Your task to perform on an android device: change the clock display to digital Image 0: 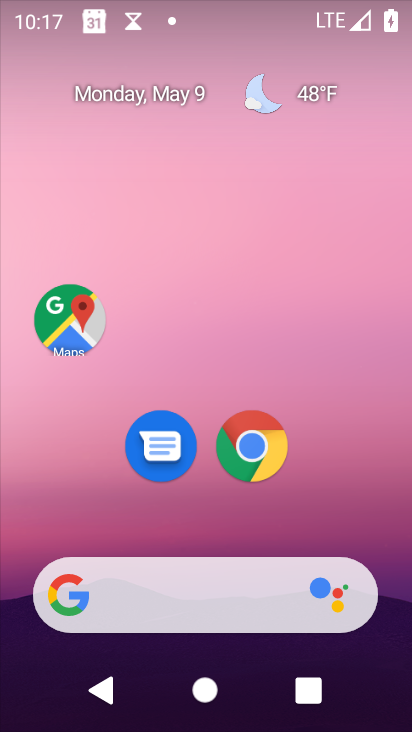
Step 0: drag from (283, 509) to (283, 96)
Your task to perform on an android device: change the clock display to digital Image 1: 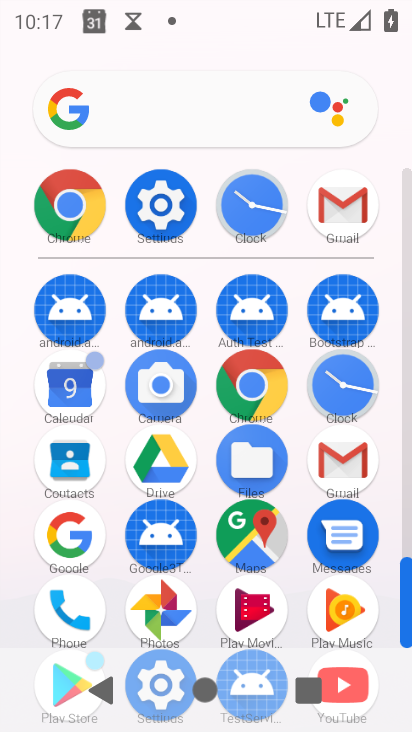
Step 1: click (253, 212)
Your task to perform on an android device: change the clock display to digital Image 2: 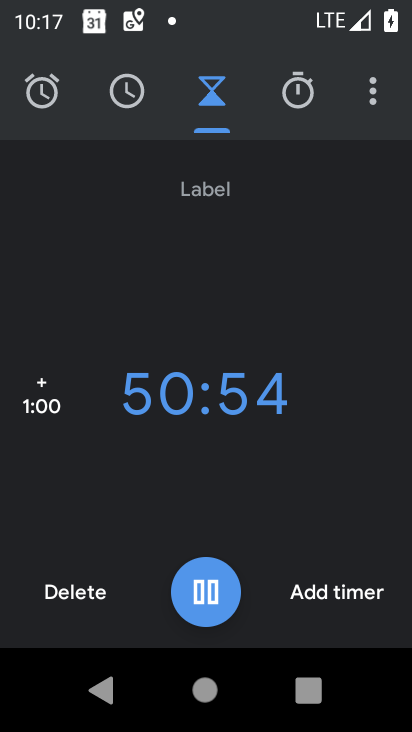
Step 2: click (377, 102)
Your task to perform on an android device: change the clock display to digital Image 3: 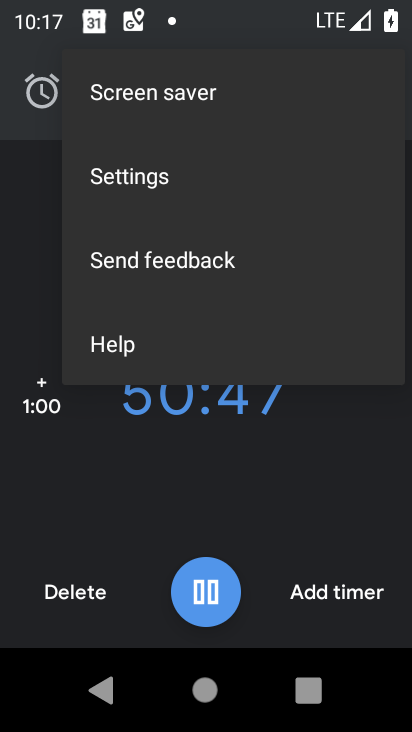
Step 3: click (158, 182)
Your task to perform on an android device: change the clock display to digital Image 4: 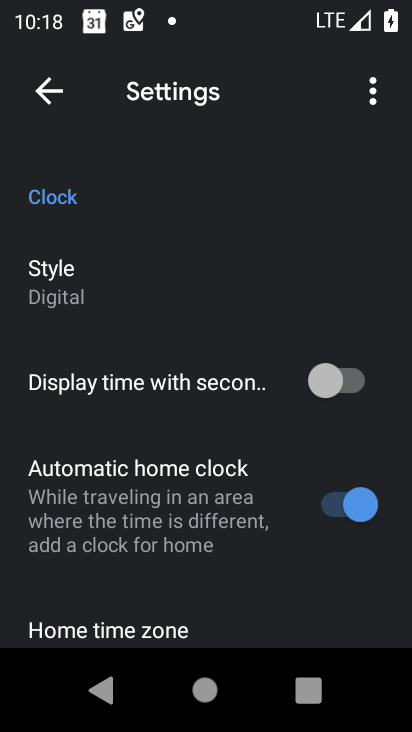
Step 4: click (87, 295)
Your task to perform on an android device: change the clock display to digital Image 5: 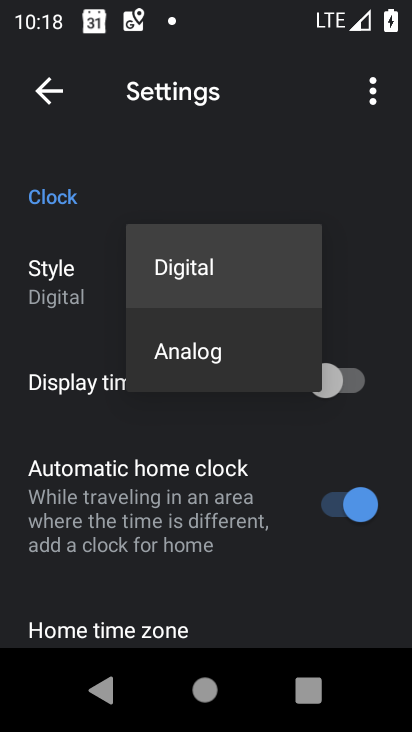
Step 5: click (182, 287)
Your task to perform on an android device: change the clock display to digital Image 6: 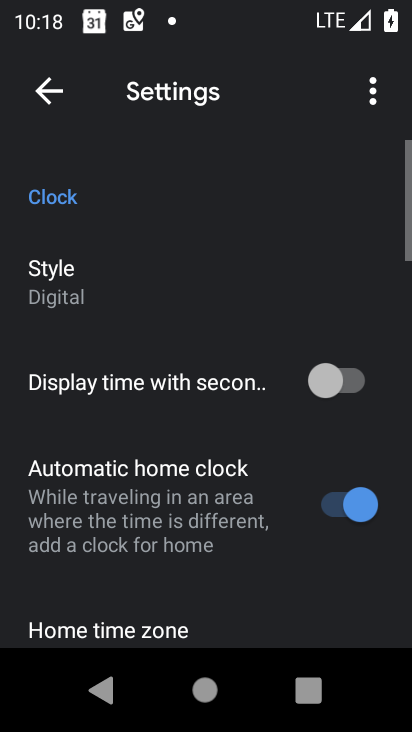
Step 6: task complete